Your task to perform on an android device: toggle location history Image 0: 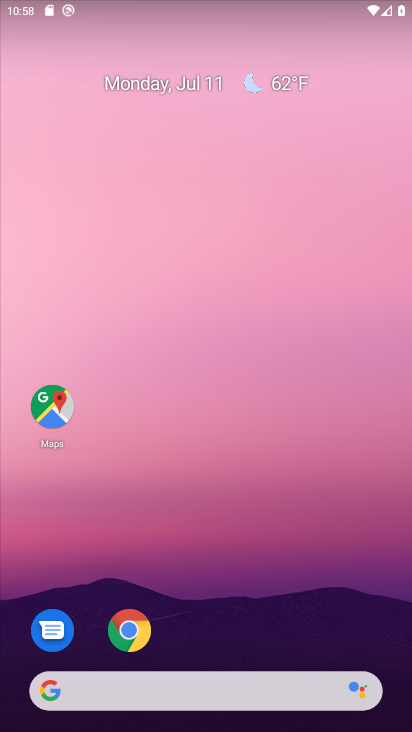
Step 0: drag from (235, 606) to (262, 11)
Your task to perform on an android device: toggle location history Image 1: 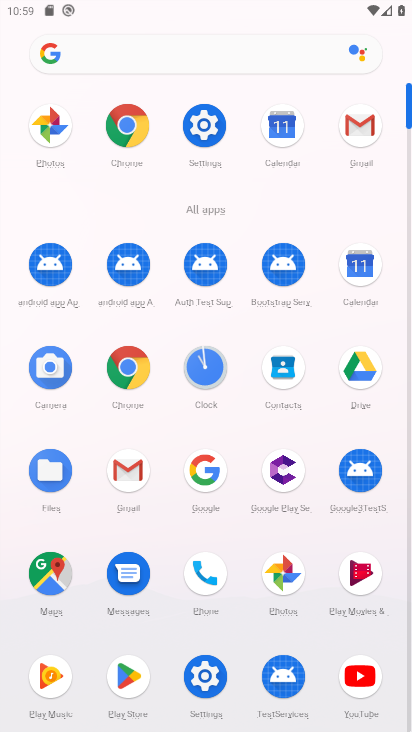
Step 1: click (201, 126)
Your task to perform on an android device: toggle location history Image 2: 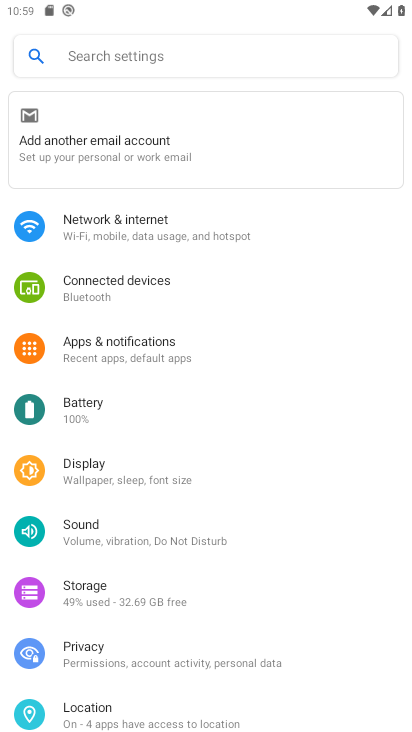
Step 2: drag from (140, 573) to (135, 394)
Your task to perform on an android device: toggle location history Image 3: 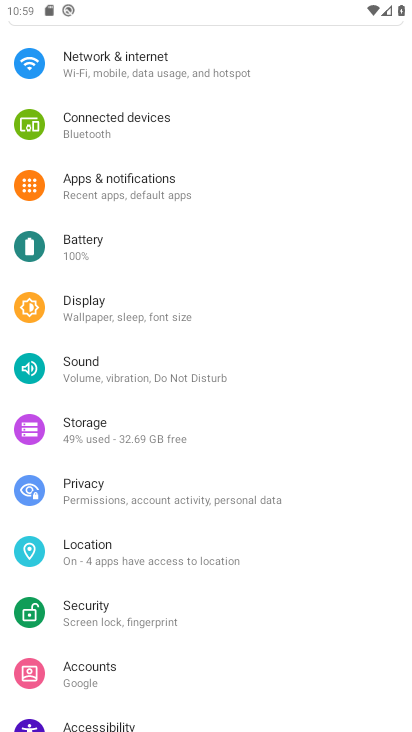
Step 3: click (138, 549)
Your task to perform on an android device: toggle location history Image 4: 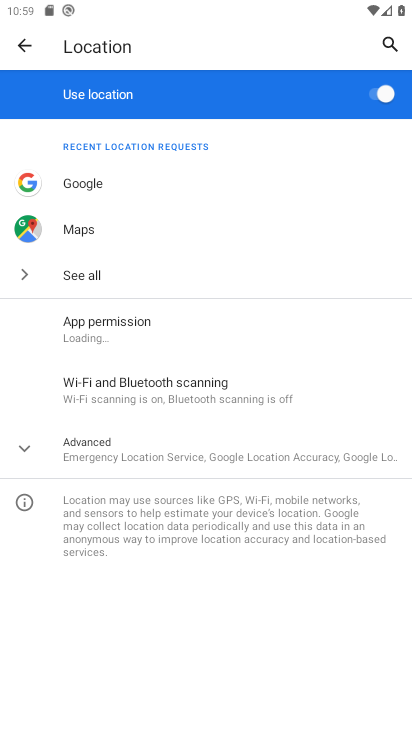
Step 4: click (28, 444)
Your task to perform on an android device: toggle location history Image 5: 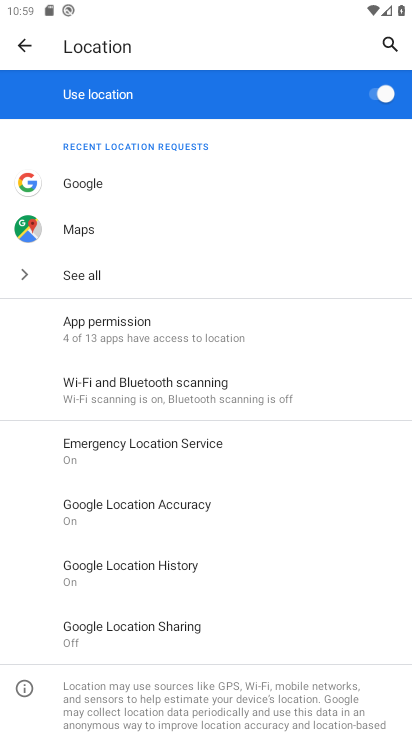
Step 5: click (187, 562)
Your task to perform on an android device: toggle location history Image 6: 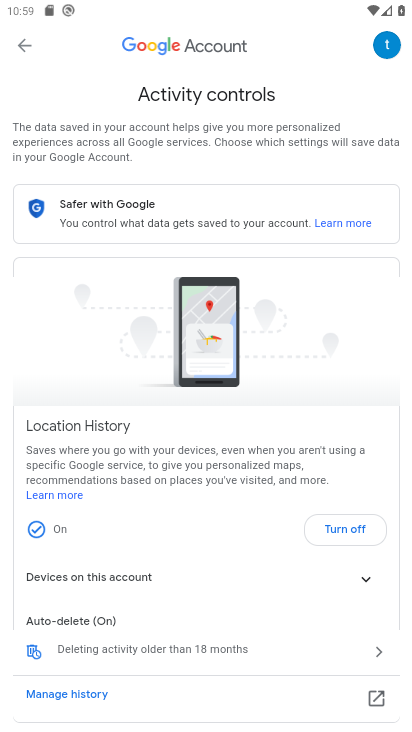
Step 6: click (352, 521)
Your task to perform on an android device: toggle location history Image 7: 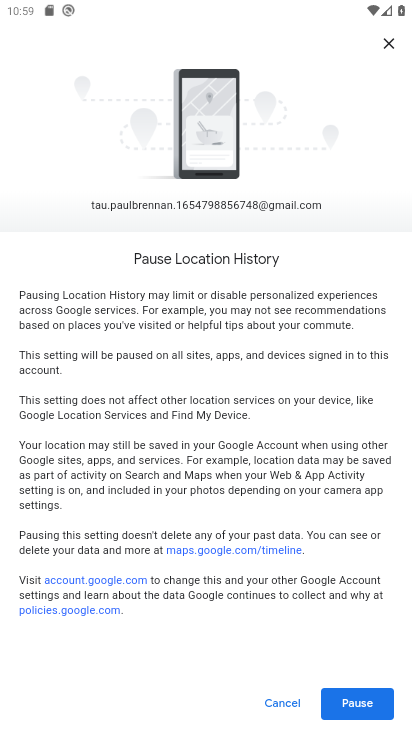
Step 7: click (379, 694)
Your task to perform on an android device: toggle location history Image 8: 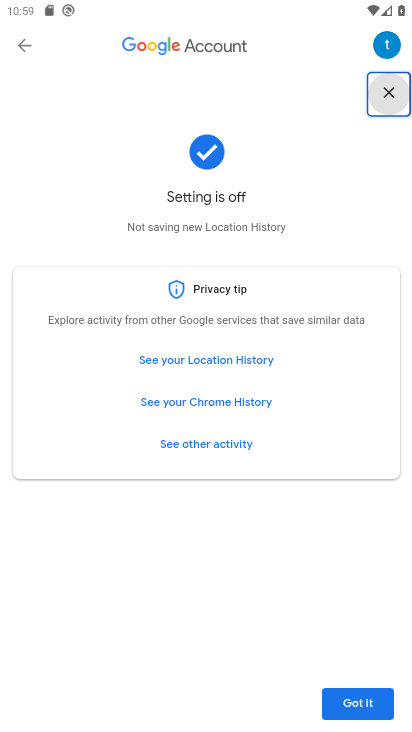
Step 8: click (353, 698)
Your task to perform on an android device: toggle location history Image 9: 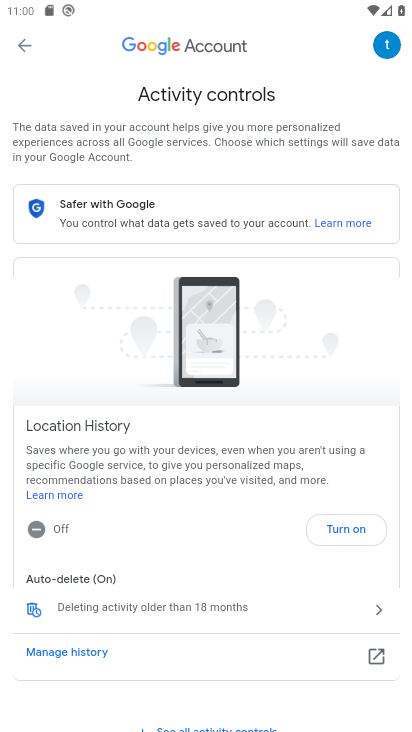
Step 9: task complete